Your task to perform on an android device: read, delete, or share a saved page in the chrome app Image 0: 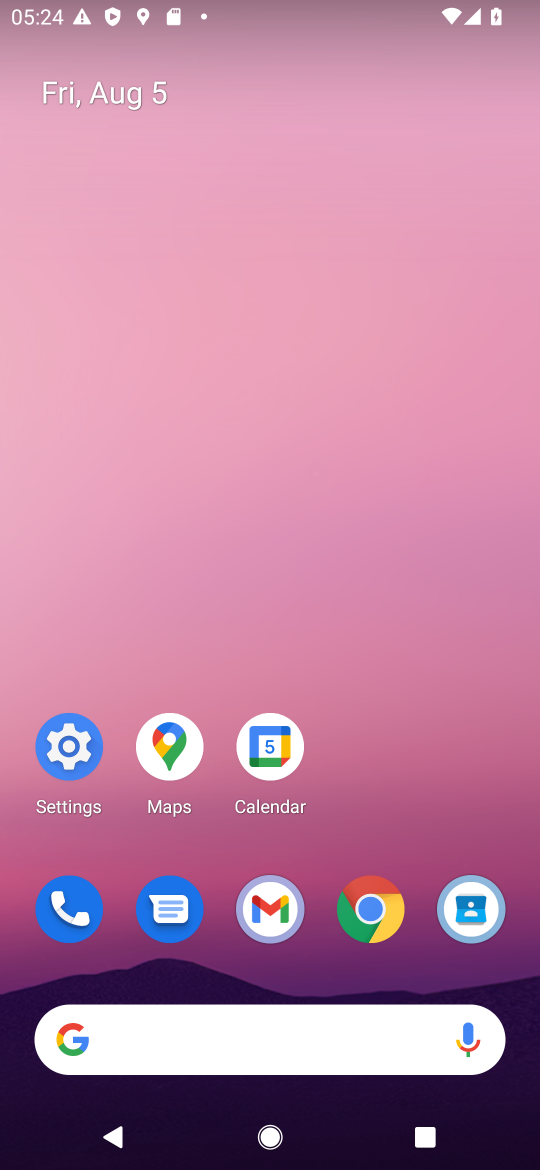
Step 0: click (373, 913)
Your task to perform on an android device: read, delete, or share a saved page in the chrome app Image 1: 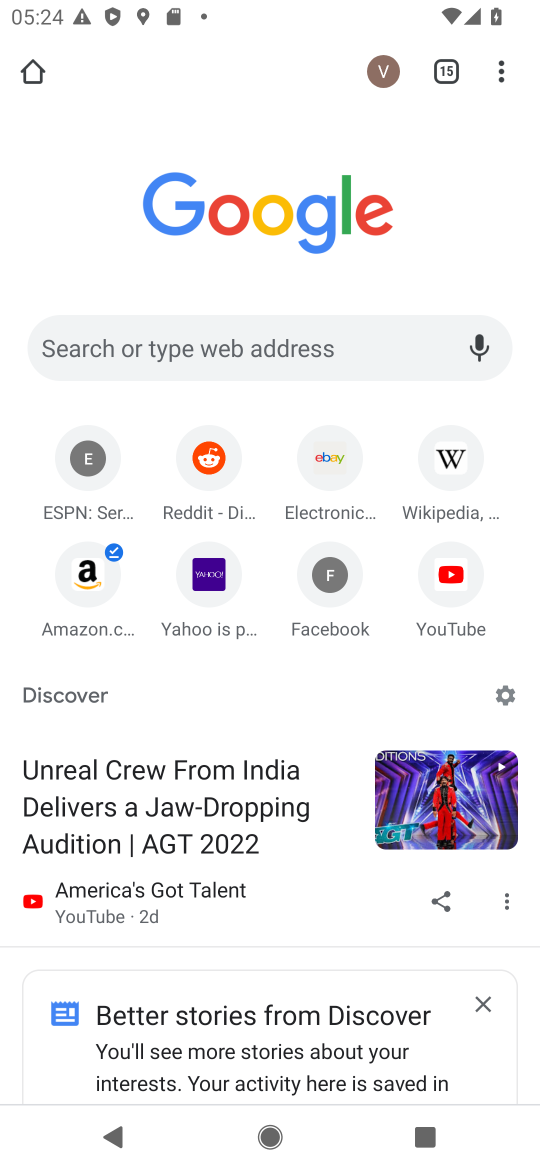
Step 1: click (502, 72)
Your task to perform on an android device: read, delete, or share a saved page in the chrome app Image 2: 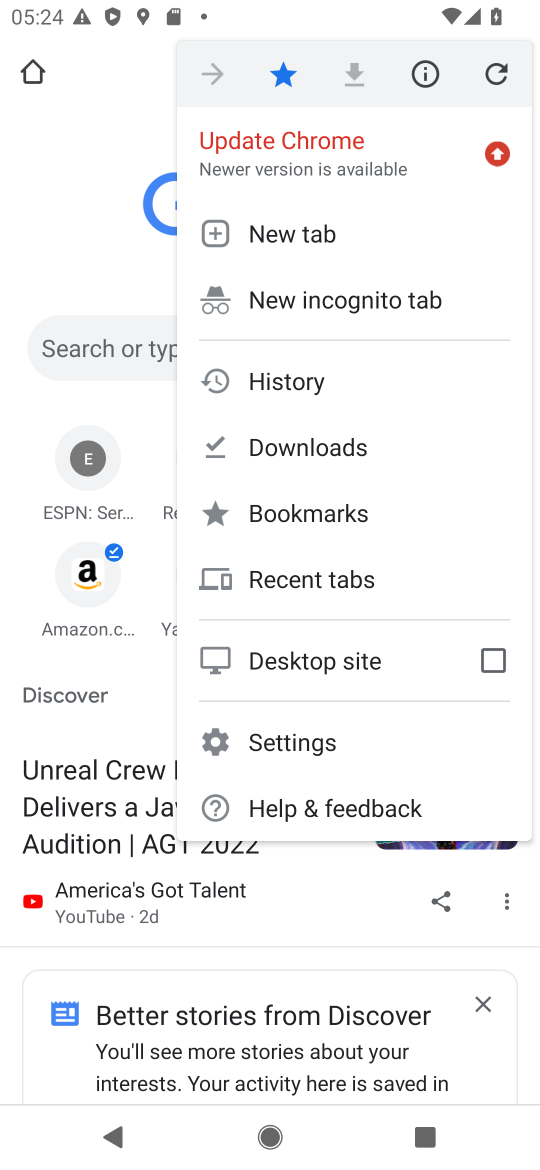
Step 2: click (287, 447)
Your task to perform on an android device: read, delete, or share a saved page in the chrome app Image 3: 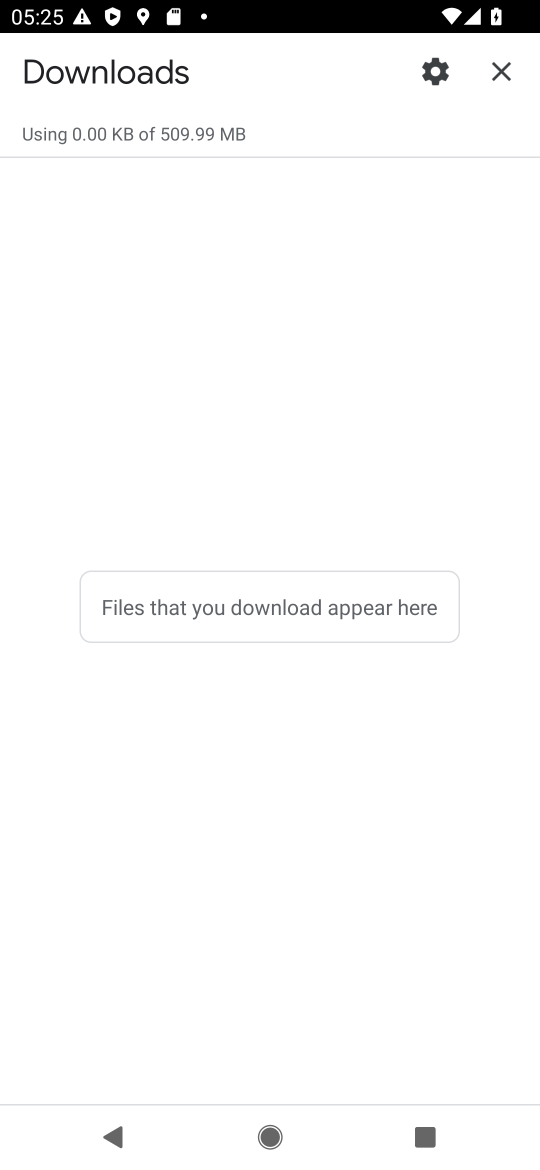
Step 3: task complete